Your task to perform on an android device: show emergency info Image 0: 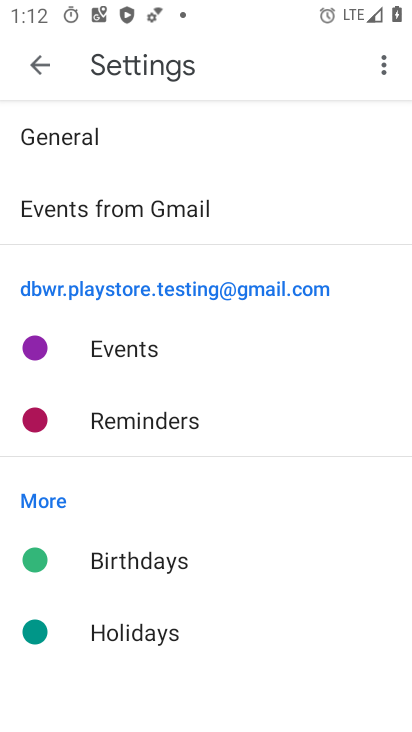
Step 0: press home button
Your task to perform on an android device: show emergency info Image 1: 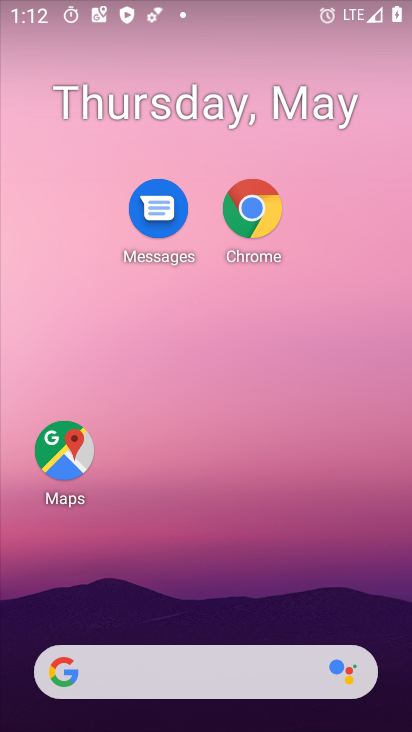
Step 1: drag from (217, 580) to (174, 11)
Your task to perform on an android device: show emergency info Image 2: 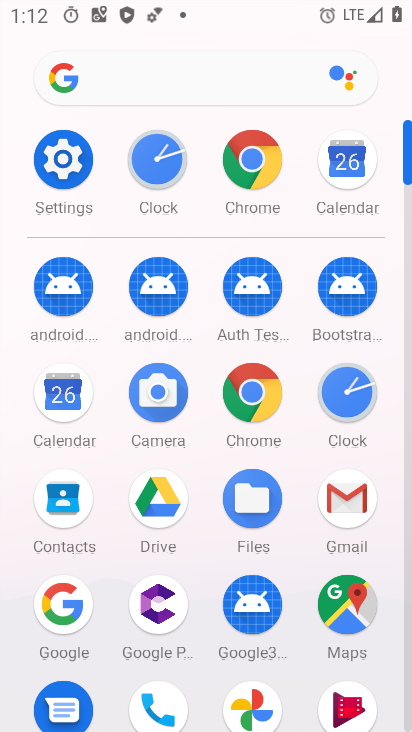
Step 2: click (61, 162)
Your task to perform on an android device: show emergency info Image 3: 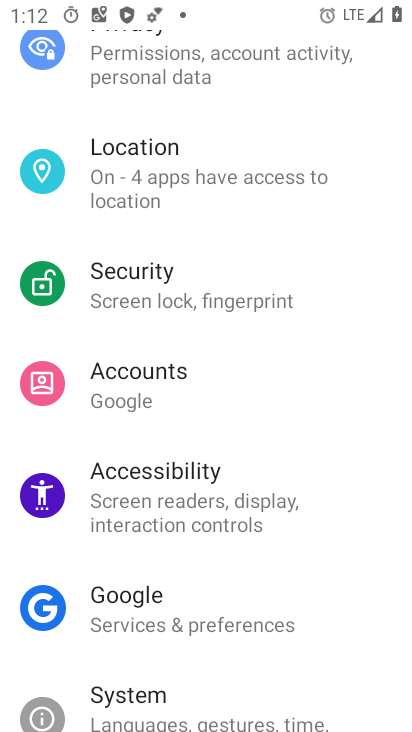
Step 3: drag from (165, 574) to (179, 133)
Your task to perform on an android device: show emergency info Image 4: 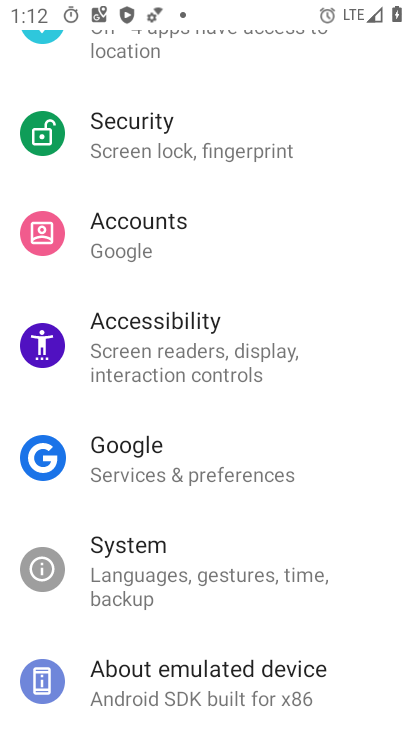
Step 4: click (156, 692)
Your task to perform on an android device: show emergency info Image 5: 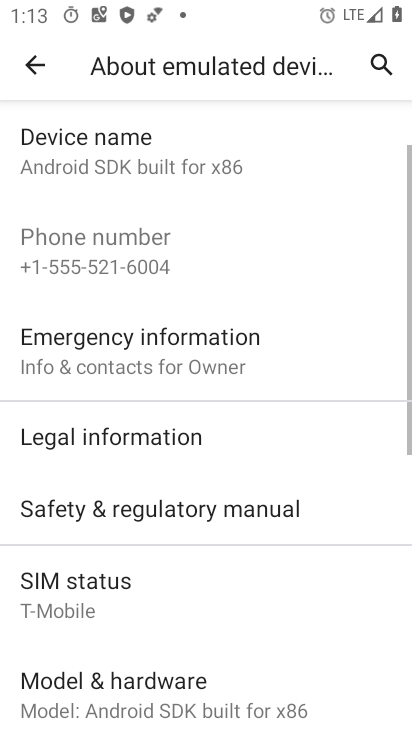
Step 5: click (121, 342)
Your task to perform on an android device: show emergency info Image 6: 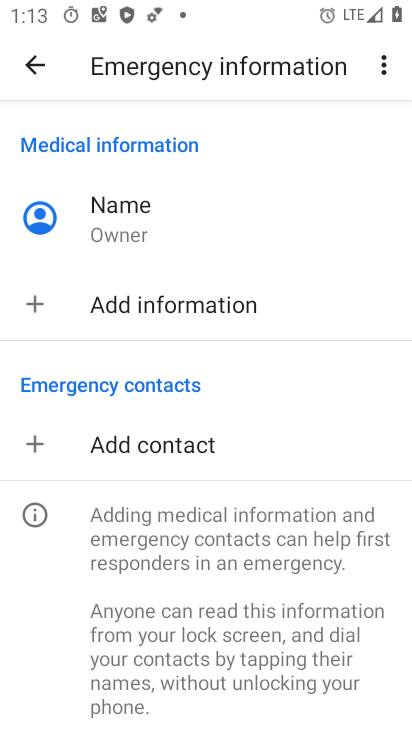
Step 6: task complete